Your task to perform on an android device: Open my contact list Image 0: 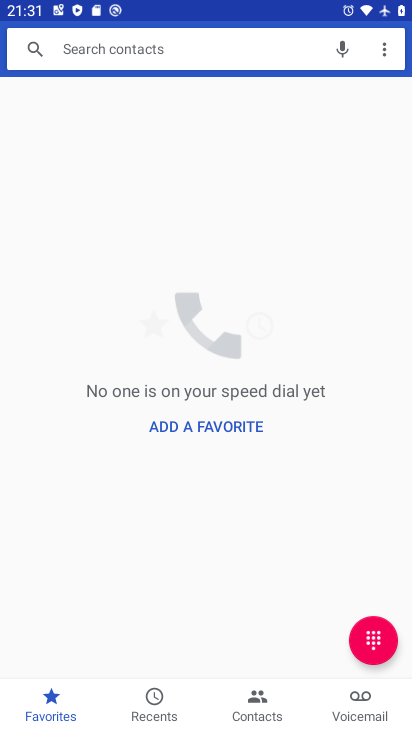
Step 0: press home button
Your task to perform on an android device: Open my contact list Image 1: 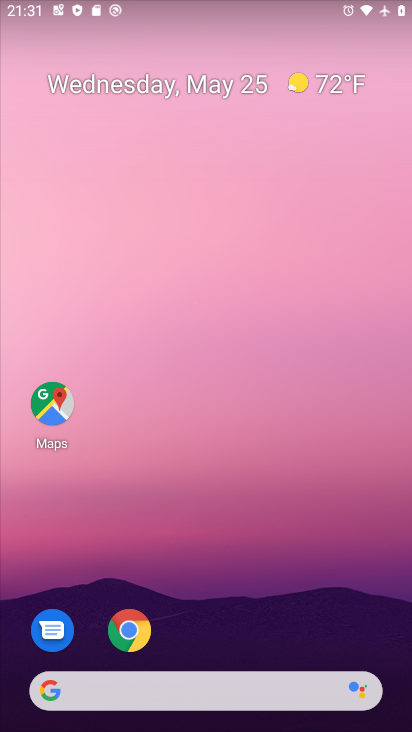
Step 1: drag from (217, 649) to (223, 525)
Your task to perform on an android device: Open my contact list Image 2: 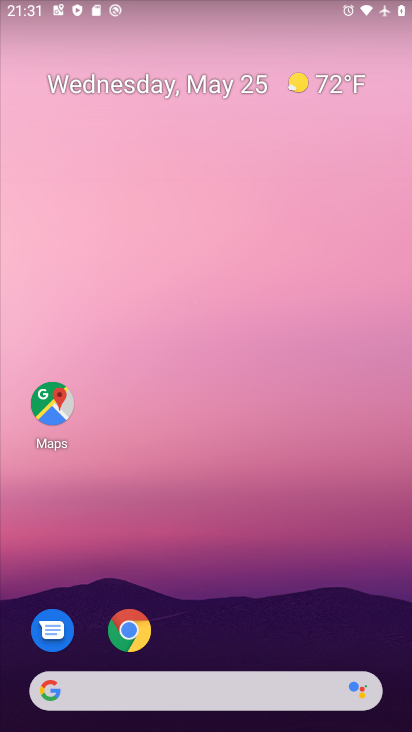
Step 2: drag from (223, 631) to (235, 204)
Your task to perform on an android device: Open my contact list Image 3: 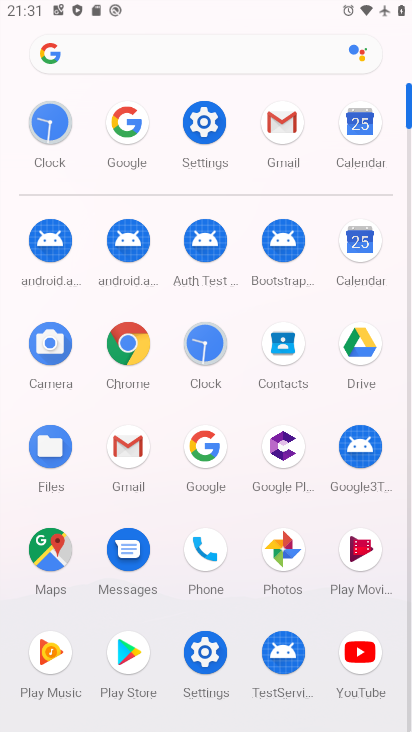
Step 3: click (288, 350)
Your task to perform on an android device: Open my contact list Image 4: 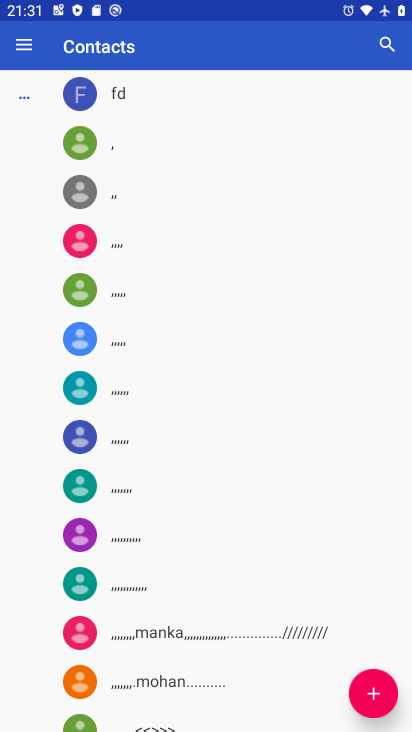
Step 4: task complete